Your task to perform on an android device: Open privacy settings Image 0: 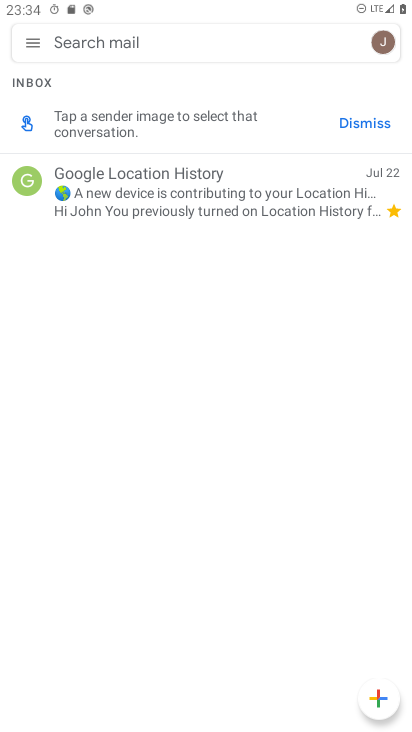
Step 0: press home button
Your task to perform on an android device: Open privacy settings Image 1: 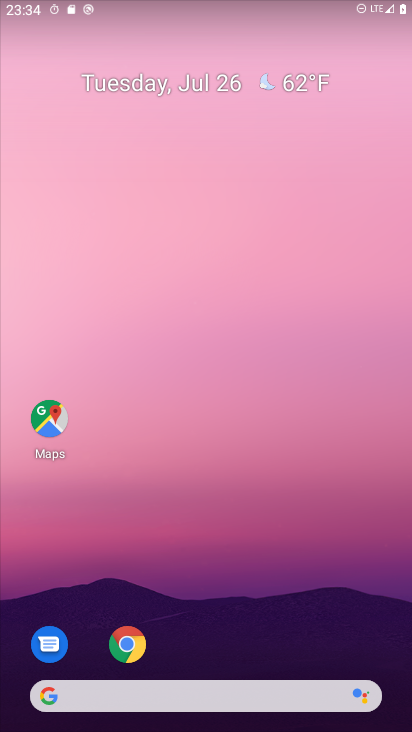
Step 1: drag from (221, 627) to (156, 39)
Your task to perform on an android device: Open privacy settings Image 2: 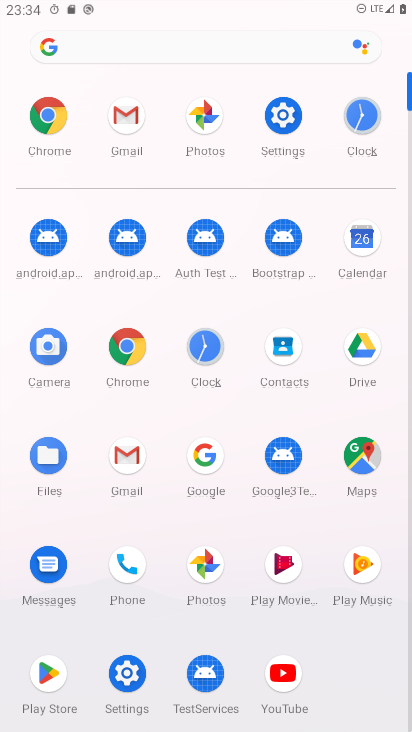
Step 2: click (280, 117)
Your task to perform on an android device: Open privacy settings Image 3: 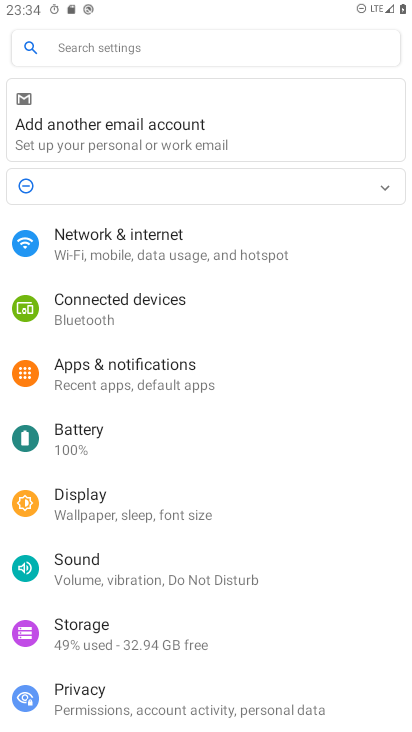
Step 3: click (78, 697)
Your task to perform on an android device: Open privacy settings Image 4: 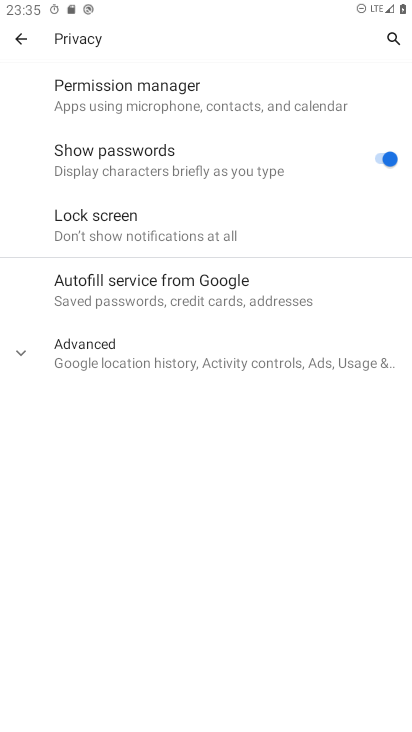
Step 4: task complete